Your task to perform on an android device: remove spam from my inbox in the gmail app Image 0: 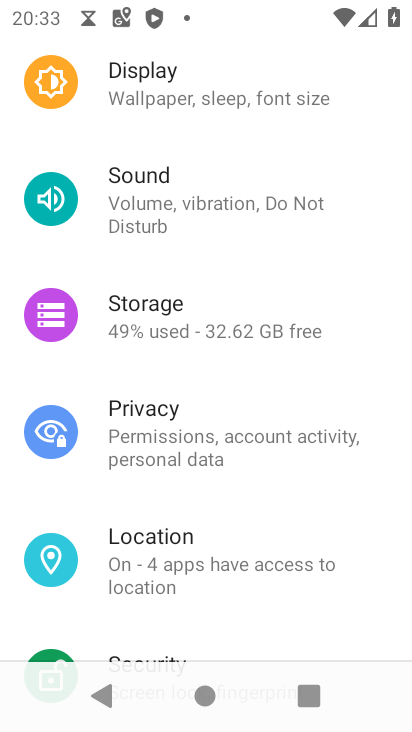
Step 0: press home button
Your task to perform on an android device: remove spam from my inbox in the gmail app Image 1: 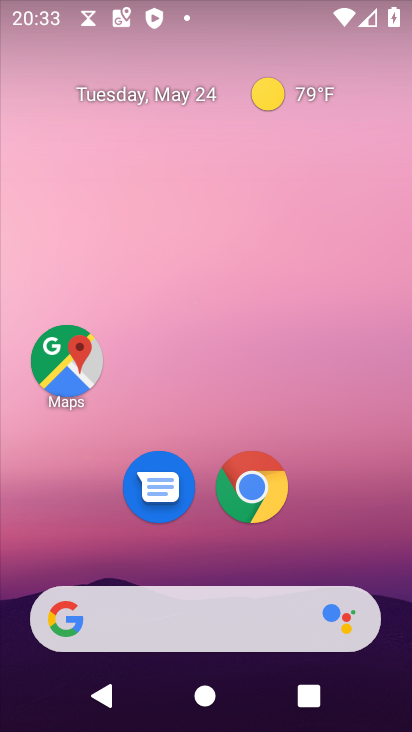
Step 1: drag from (9, 642) to (229, 126)
Your task to perform on an android device: remove spam from my inbox in the gmail app Image 2: 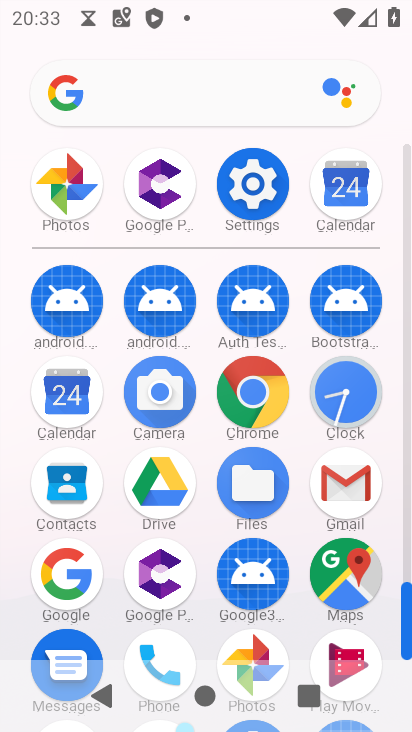
Step 2: click (356, 483)
Your task to perform on an android device: remove spam from my inbox in the gmail app Image 3: 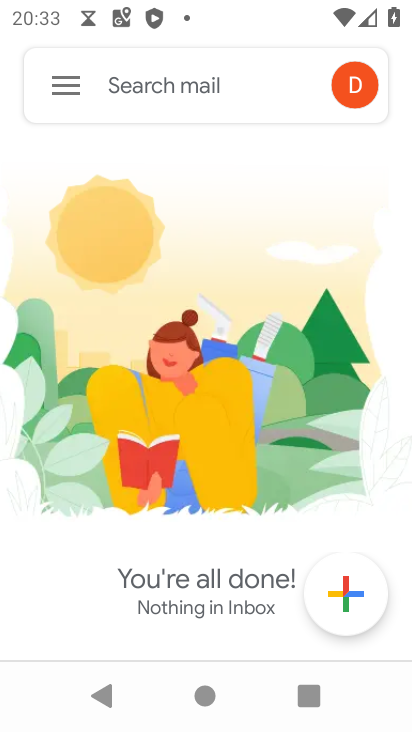
Step 3: click (58, 84)
Your task to perform on an android device: remove spam from my inbox in the gmail app Image 4: 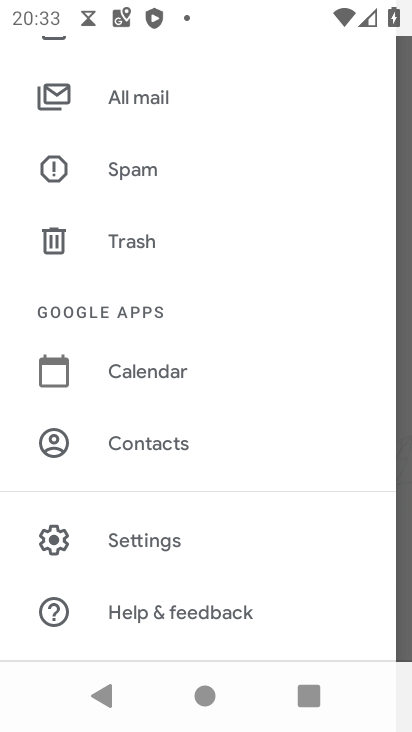
Step 4: click (165, 174)
Your task to perform on an android device: remove spam from my inbox in the gmail app Image 5: 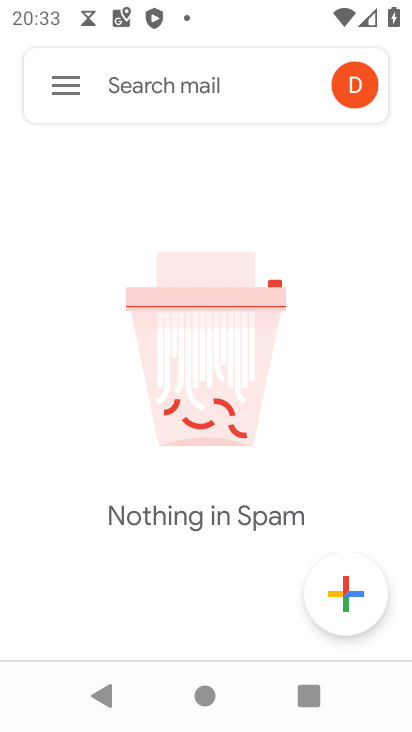
Step 5: task complete